Your task to perform on an android device: change notification settings in the gmail app Image 0: 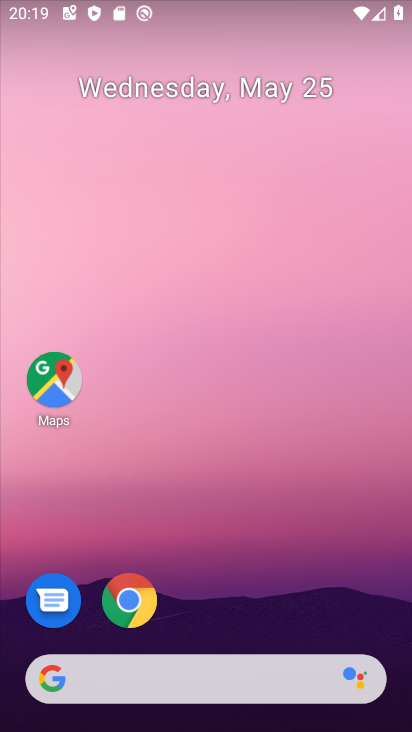
Step 0: drag from (302, 600) to (301, 213)
Your task to perform on an android device: change notification settings in the gmail app Image 1: 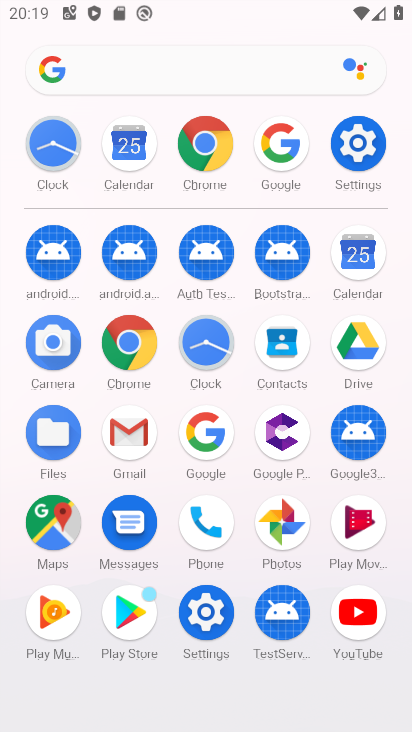
Step 1: click (146, 436)
Your task to perform on an android device: change notification settings in the gmail app Image 2: 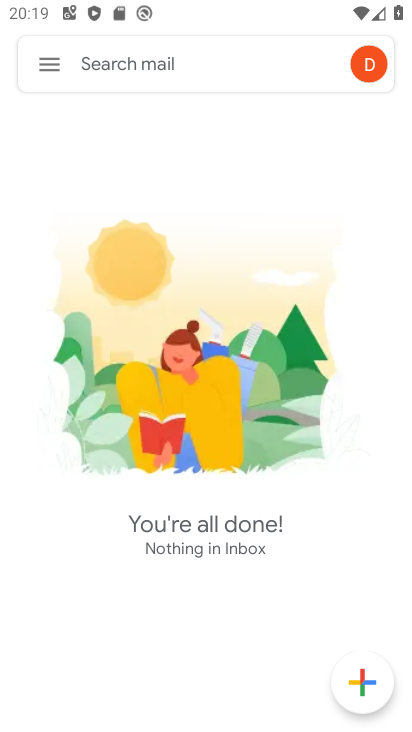
Step 2: click (41, 64)
Your task to perform on an android device: change notification settings in the gmail app Image 3: 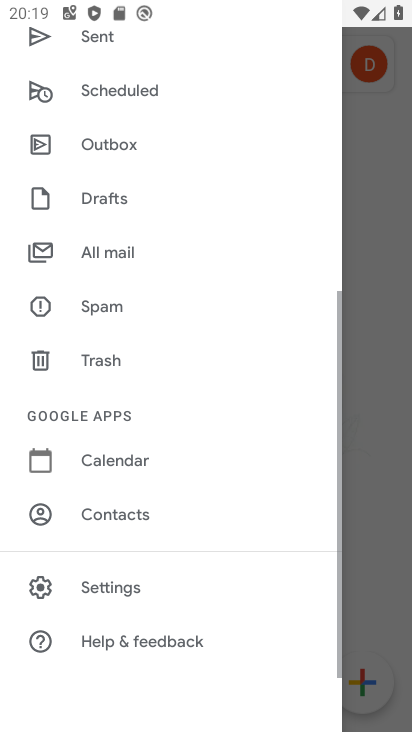
Step 3: click (136, 582)
Your task to perform on an android device: change notification settings in the gmail app Image 4: 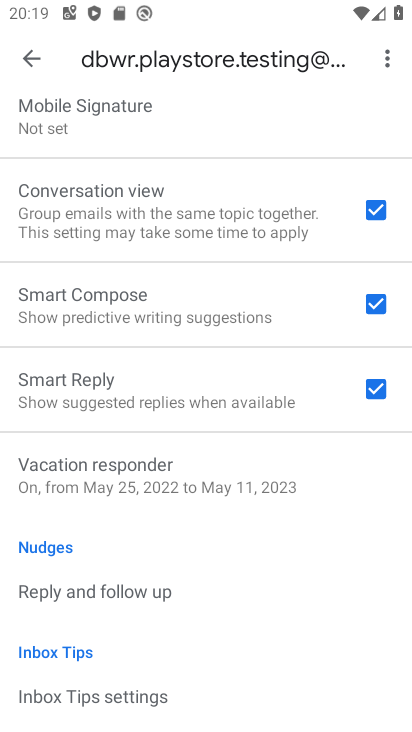
Step 4: drag from (192, 158) to (247, 533)
Your task to perform on an android device: change notification settings in the gmail app Image 5: 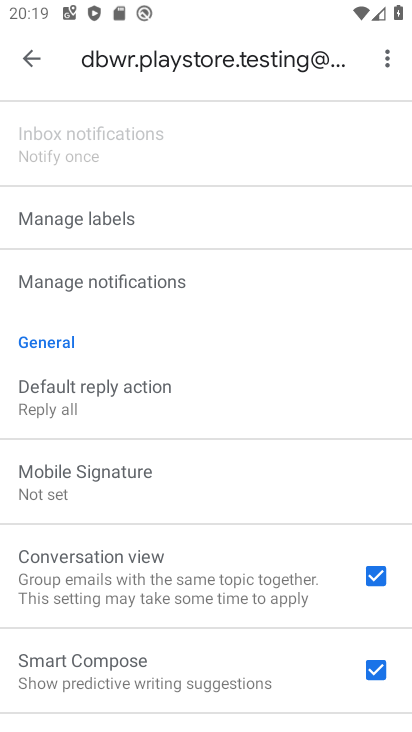
Step 5: drag from (229, 618) to (253, 293)
Your task to perform on an android device: change notification settings in the gmail app Image 6: 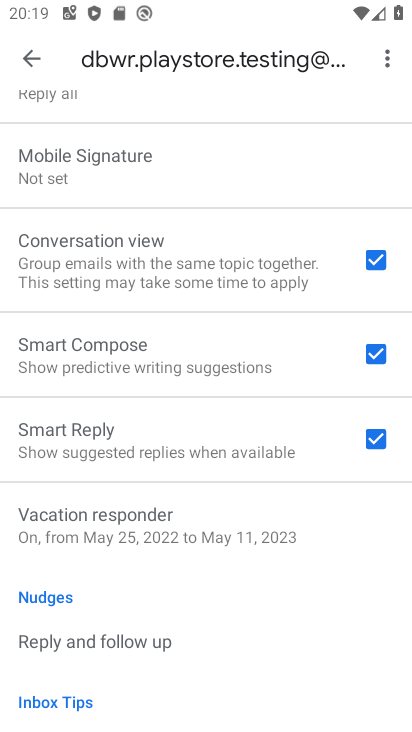
Step 6: drag from (242, 171) to (279, 612)
Your task to perform on an android device: change notification settings in the gmail app Image 7: 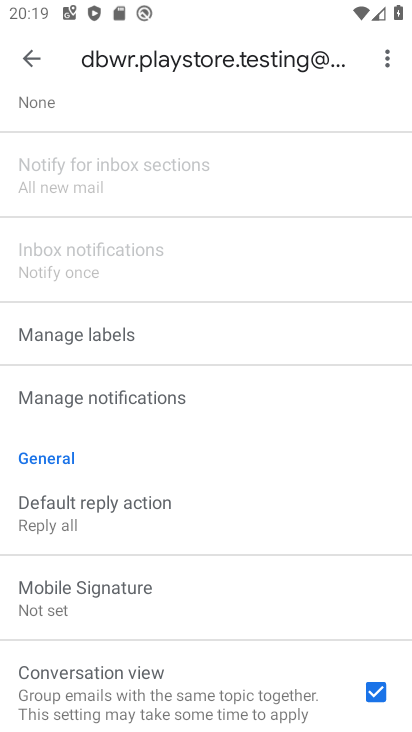
Step 7: drag from (191, 232) to (239, 578)
Your task to perform on an android device: change notification settings in the gmail app Image 8: 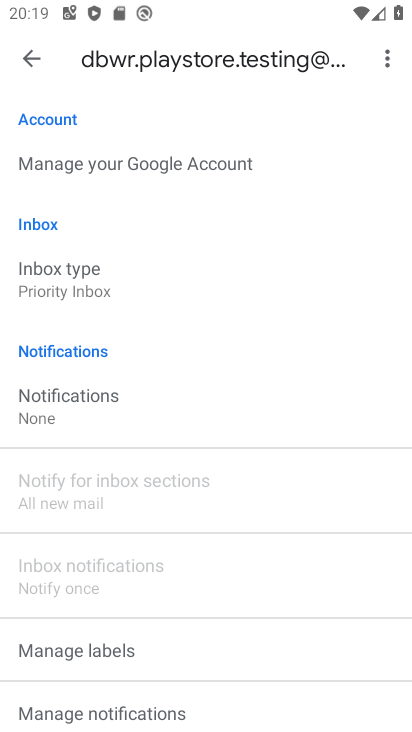
Step 8: click (108, 405)
Your task to perform on an android device: change notification settings in the gmail app Image 9: 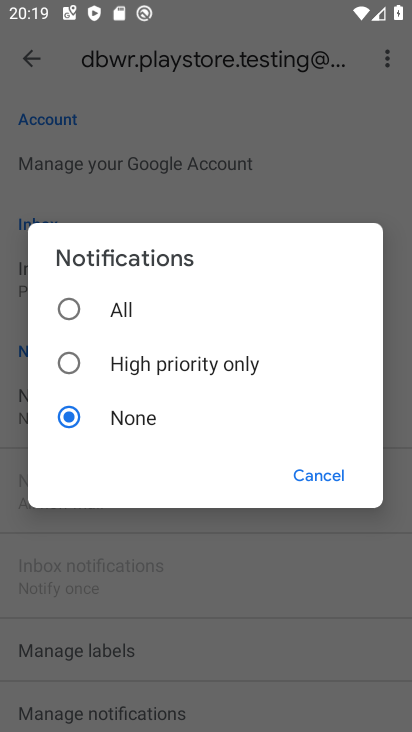
Step 9: click (78, 302)
Your task to perform on an android device: change notification settings in the gmail app Image 10: 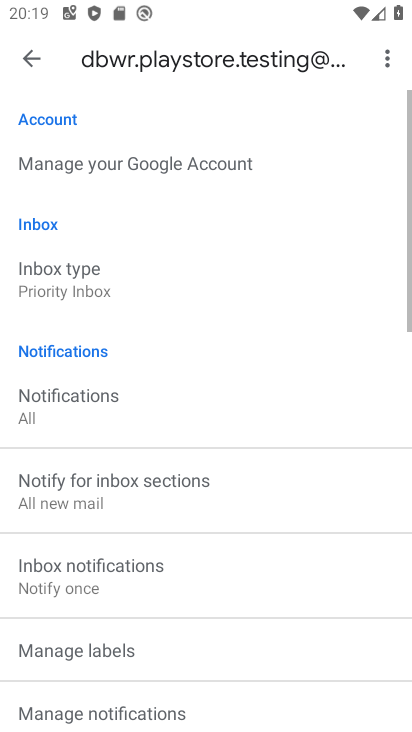
Step 10: task complete